Your task to perform on an android device: open chrome privacy settings Image 0: 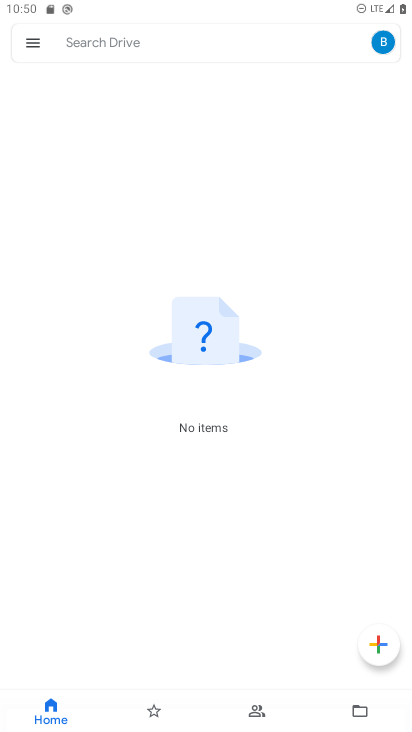
Step 0: press home button
Your task to perform on an android device: open chrome privacy settings Image 1: 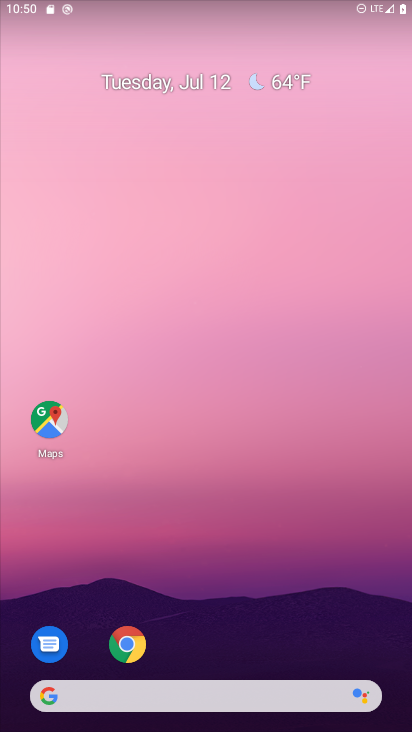
Step 1: drag from (229, 647) to (229, 529)
Your task to perform on an android device: open chrome privacy settings Image 2: 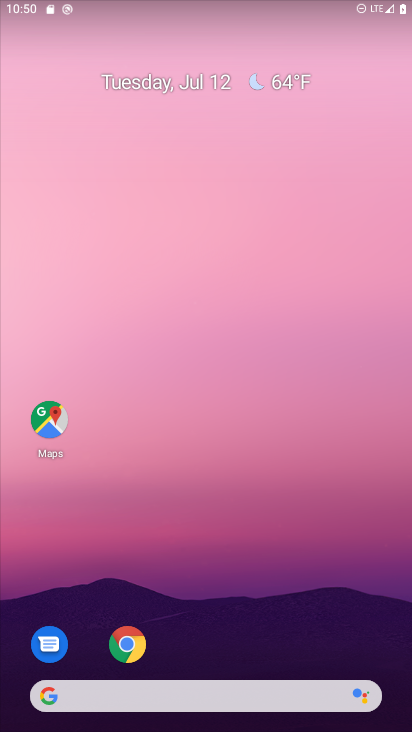
Step 2: click (123, 647)
Your task to perform on an android device: open chrome privacy settings Image 3: 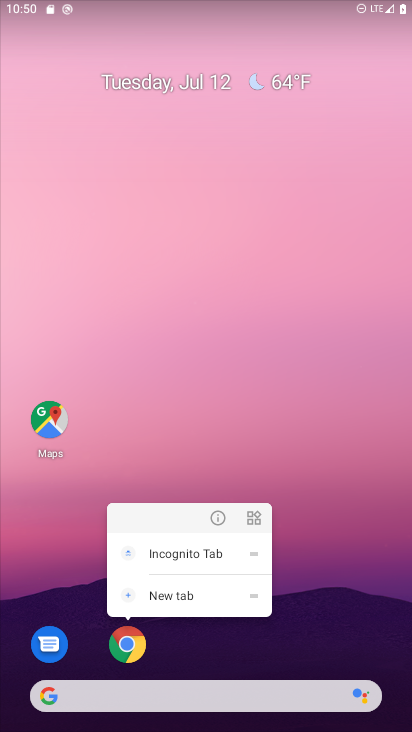
Step 3: click (325, 466)
Your task to perform on an android device: open chrome privacy settings Image 4: 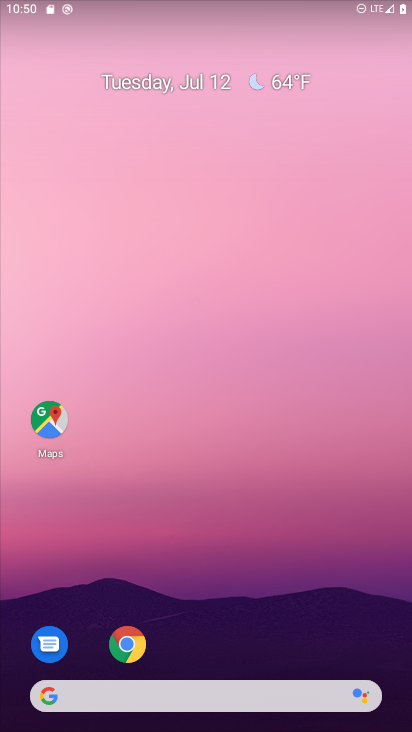
Step 4: click (138, 640)
Your task to perform on an android device: open chrome privacy settings Image 5: 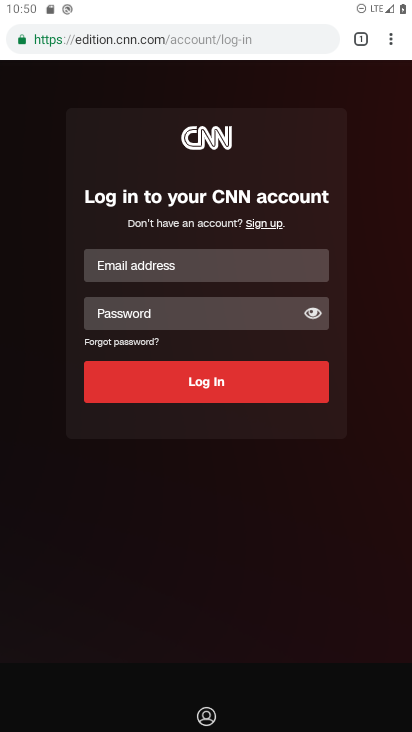
Step 5: click (389, 46)
Your task to perform on an android device: open chrome privacy settings Image 6: 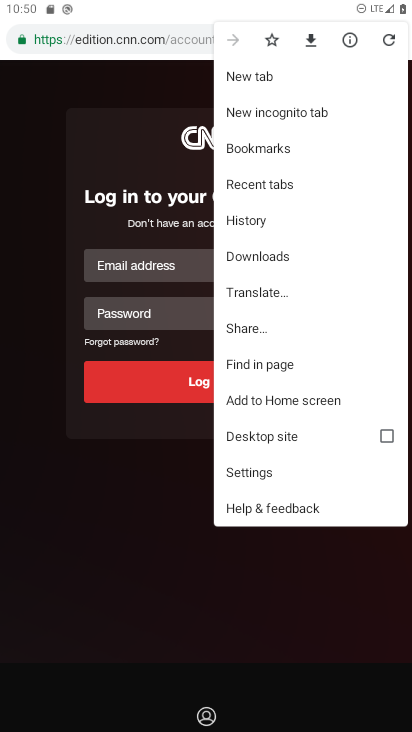
Step 6: click (268, 467)
Your task to perform on an android device: open chrome privacy settings Image 7: 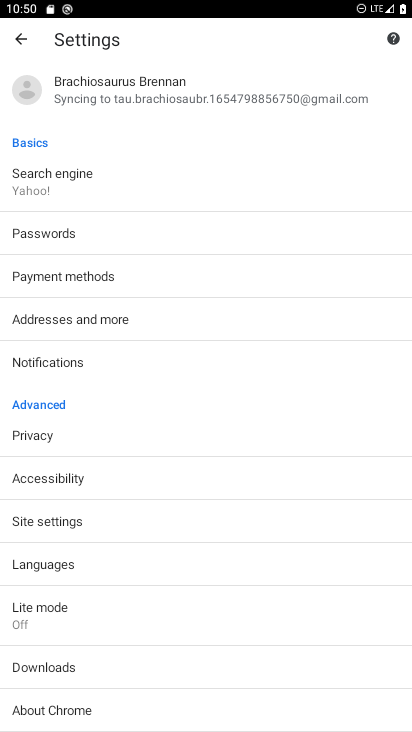
Step 7: click (148, 420)
Your task to perform on an android device: open chrome privacy settings Image 8: 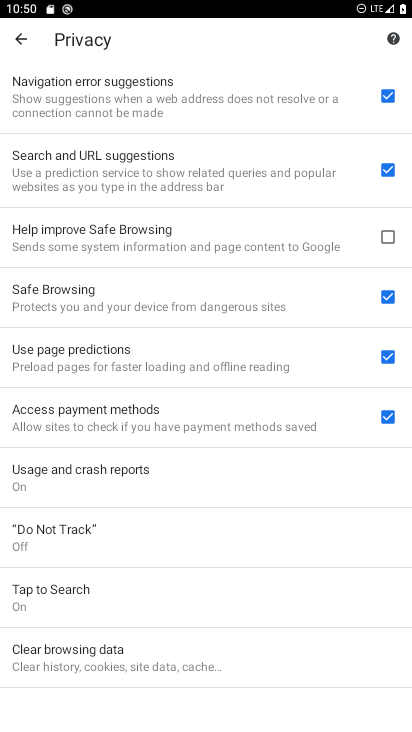
Step 8: task complete